Your task to perform on an android device: What's on my calendar today? Image 0: 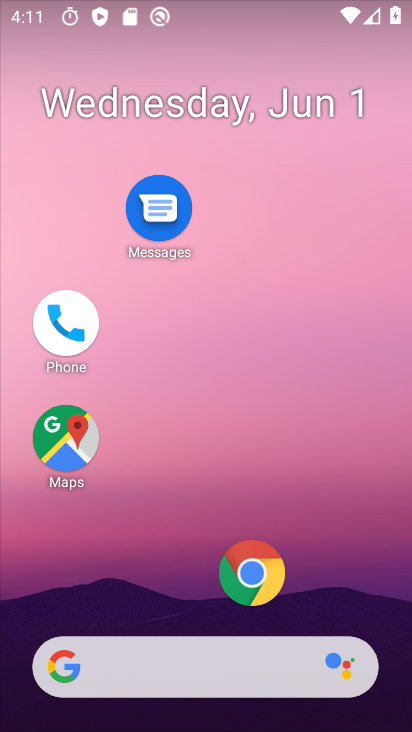
Step 0: click (270, 102)
Your task to perform on an android device: What's on my calendar today? Image 1: 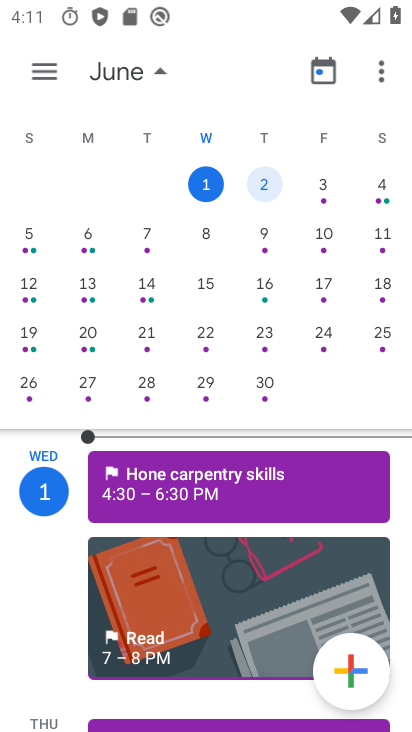
Step 1: task complete